Your task to perform on an android device: turn vacation reply on in the gmail app Image 0: 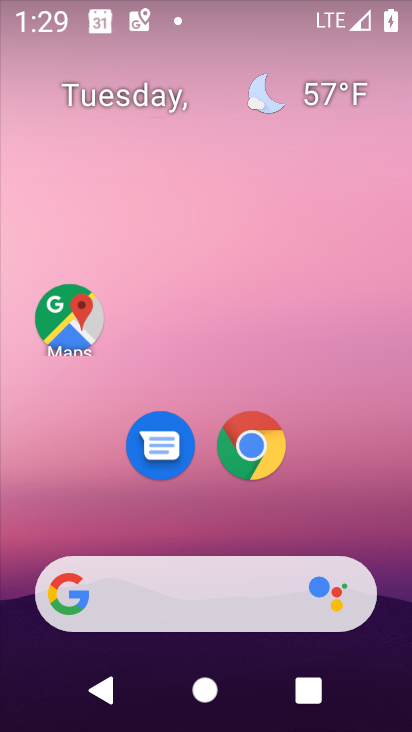
Step 0: drag from (381, 531) to (371, 189)
Your task to perform on an android device: turn vacation reply on in the gmail app Image 1: 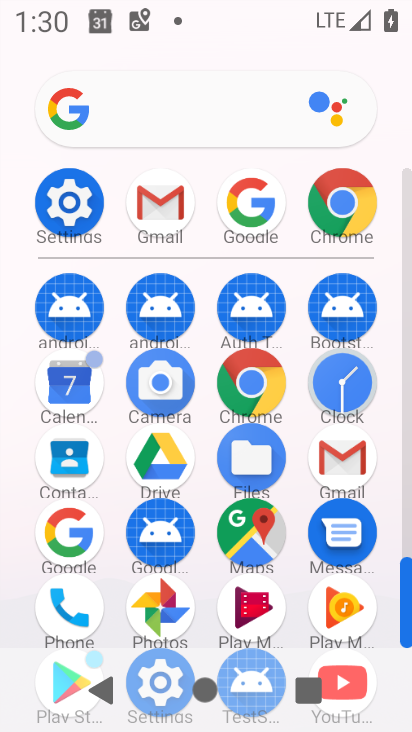
Step 1: click (336, 458)
Your task to perform on an android device: turn vacation reply on in the gmail app Image 2: 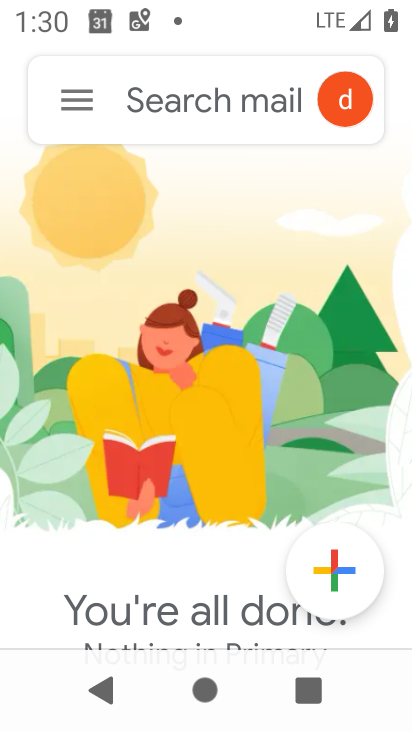
Step 2: click (81, 93)
Your task to perform on an android device: turn vacation reply on in the gmail app Image 3: 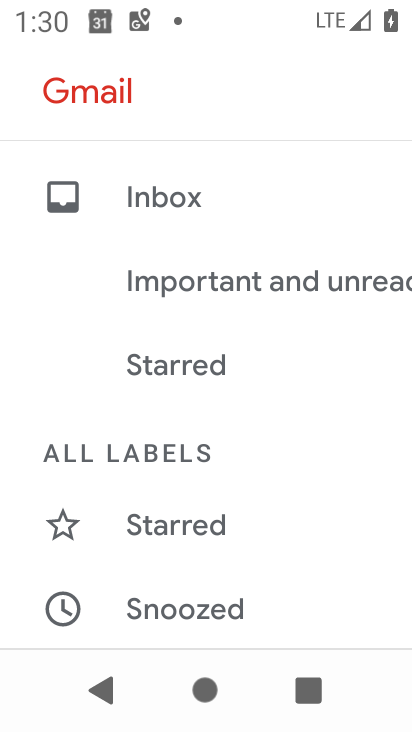
Step 3: drag from (329, 448) to (353, 231)
Your task to perform on an android device: turn vacation reply on in the gmail app Image 4: 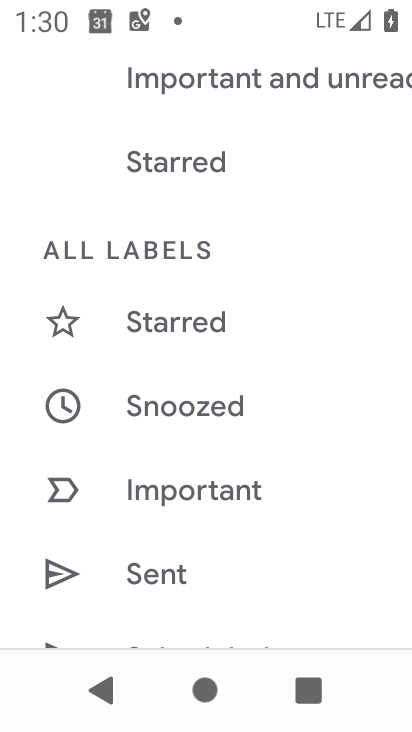
Step 4: drag from (340, 439) to (344, 285)
Your task to perform on an android device: turn vacation reply on in the gmail app Image 5: 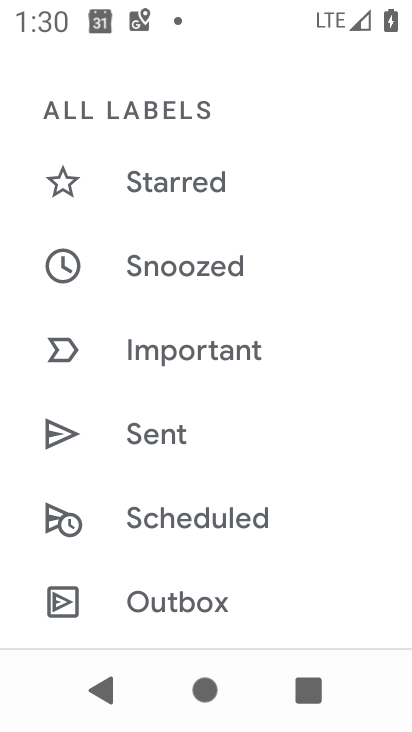
Step 5: drag from (328, 449) to (329, 306)
Your task to perform on an android device: turn vacation reply on in the gmail app Image 6: 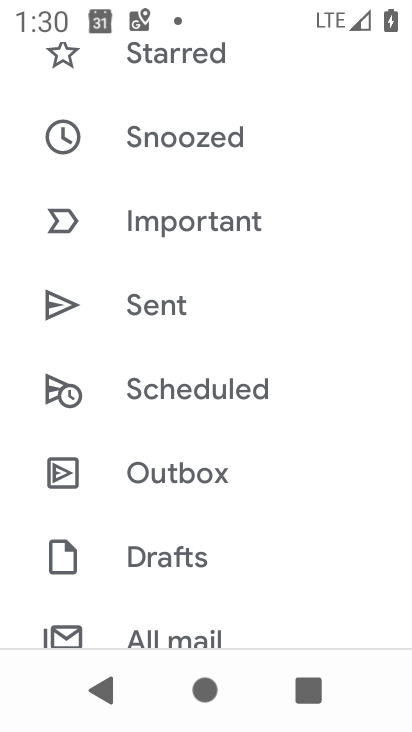
Step 6: drag from (322, 494) to (339, 327)
Your task to perform on an android device: turn vacation reply on in the gmail app Image 7: 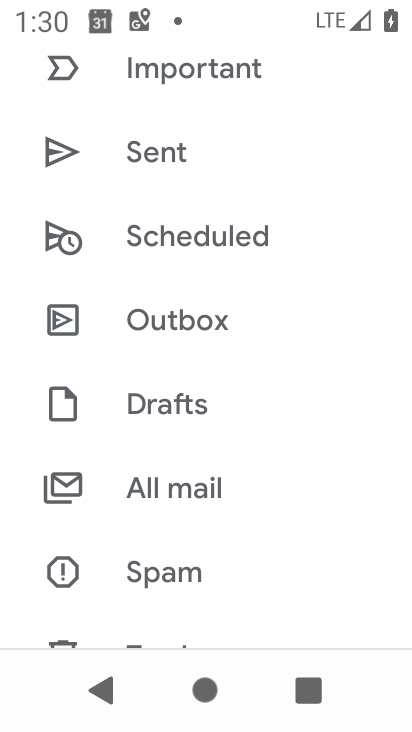
Step 7: drag from (346, 496) to (346, 373)
Your task to perform on an android device: turn vacation reply on in the gmail app Image 8: 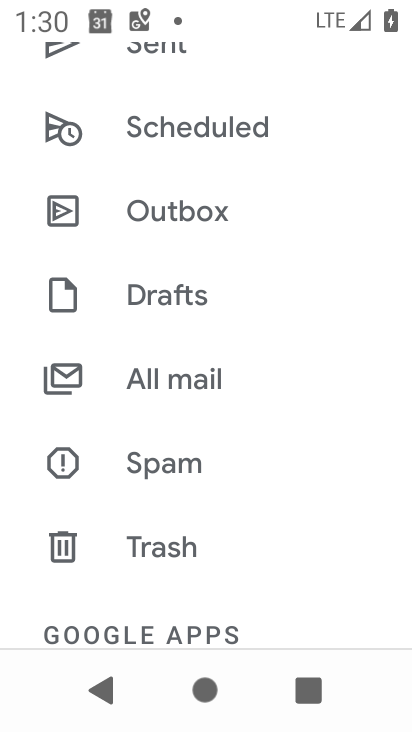
Step 8: drag from (302, 518) to (321, 282)
Your task to perform on an android device: turn vacation reply on in the gmail app Image 9: 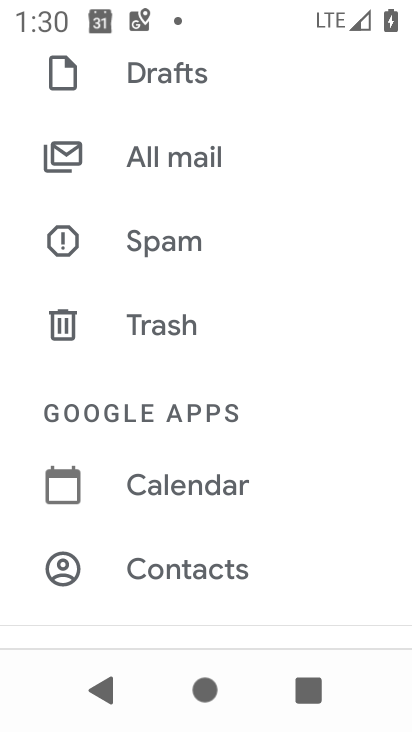
Step 9: drag from (308, 548) to (302, 406)
Your task to perform on an android device: turn vacation reply on in the gmail app Image 10: 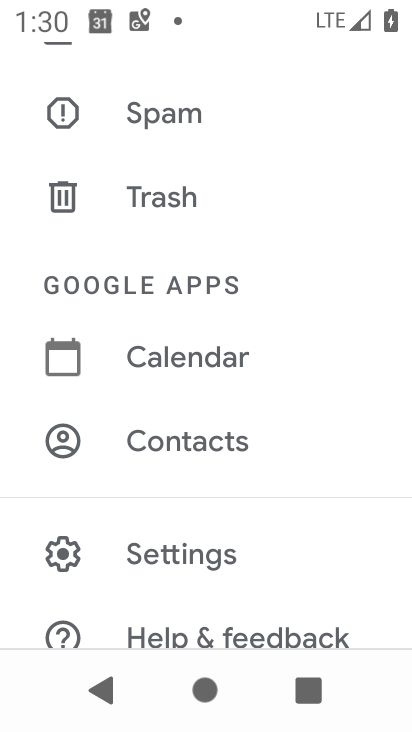
Step 10: click (215, 558)
Your task to perform on an android device: turn vacation reply on in the gmail app Image 11: 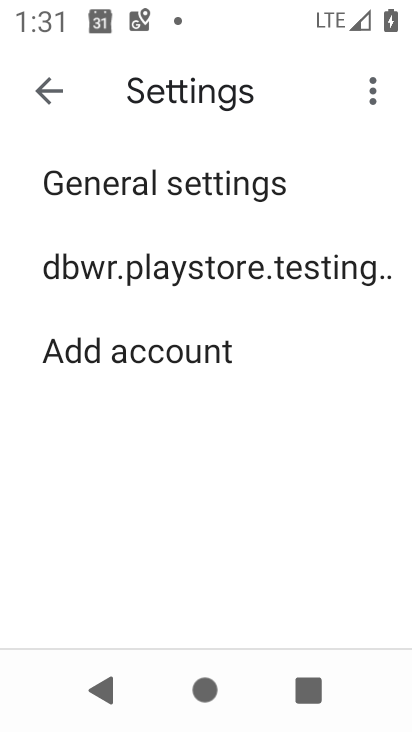
Step 11: click (235, 265)
Your task to perform on an android device: turn vacation reply on in the gmail app Image 12: 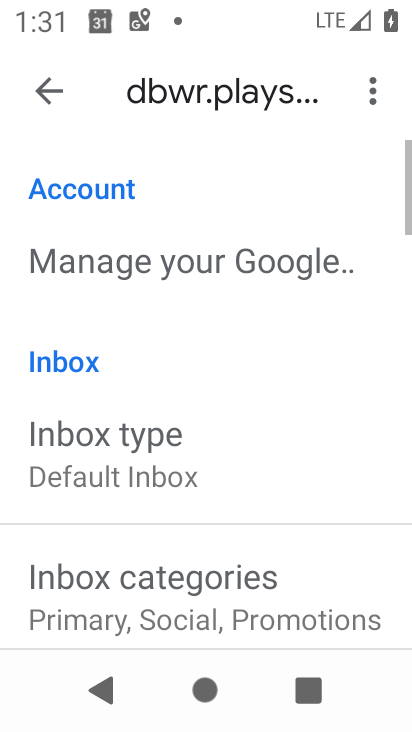
Step 12: drag from (294, 482) to (303, 390)
Your task to perform on an android device: turn vacation reply on in the gmail app Image 13: 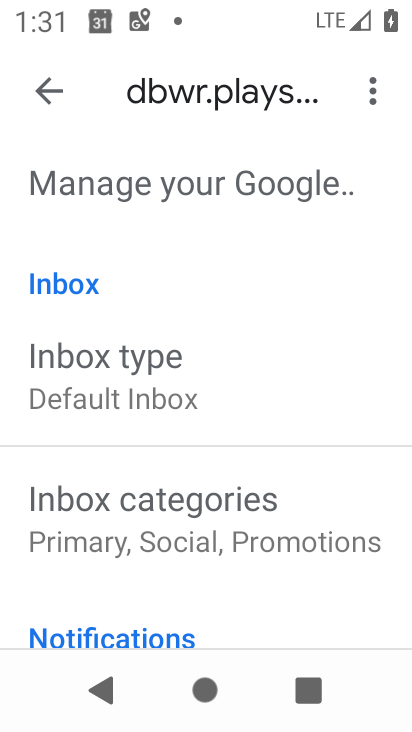
Step 13: drag from (313, 565) to (314, 419)
Your task to perform on an android device: turn vacation reply on in the gmail app Image 14: 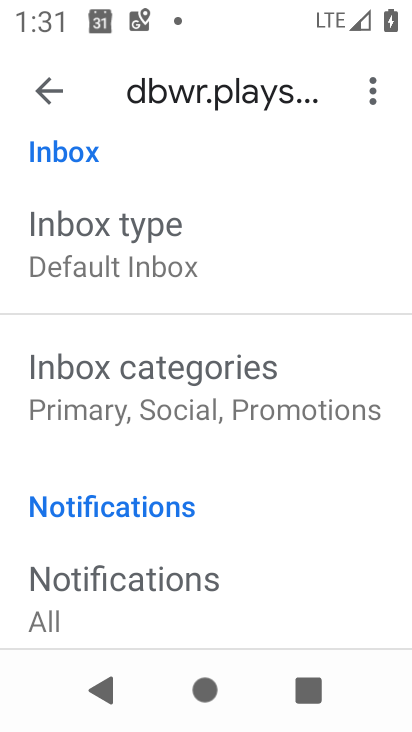
Step 14: drag from (323, 538) to (347, 299)
Your task to perform on an android device: turn vacation reply on in the gmail app Image 15: 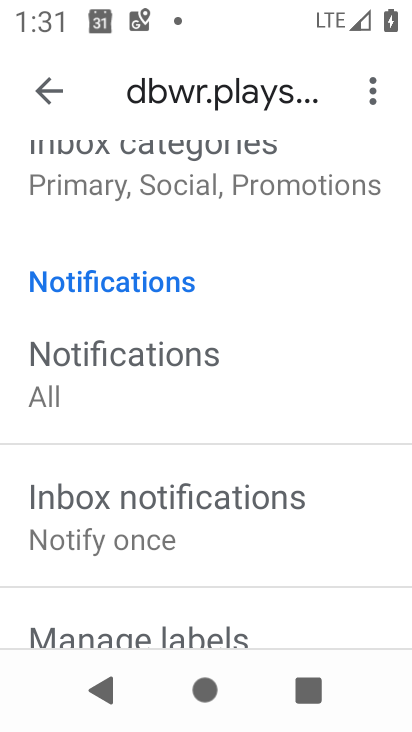
Step 15: drag from (337, 489) to (309, 345)
Your task to perform on an android device: turn vacation reply on in the gmail app Image 16: 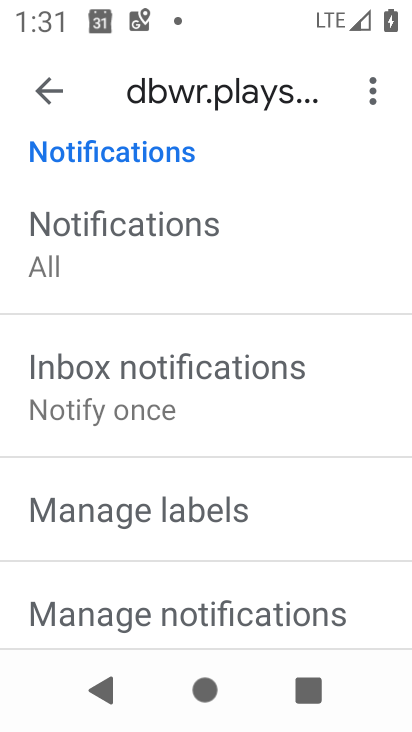
Step 16: drag from (302, 513) to (289, 370)
Your task to perform on an android device: turn vacation reply on in the gmail app Image 17: 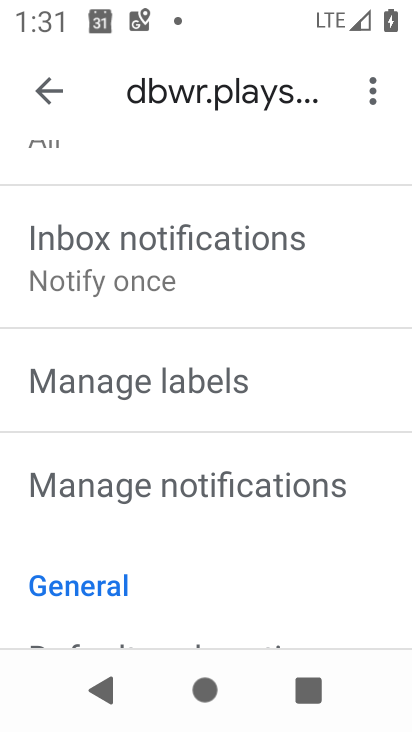
Step 17: drag from (296, 496) to (295, 337)
Your task to perform on an android device: turn vacation reply on in the gmail app Image 18: 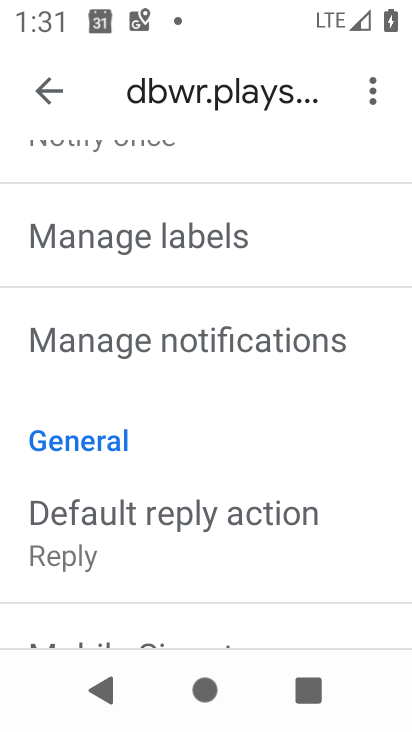
Step 18: drag from (309, 534) to (320, 366)
Your task to perform on an android device: turn vacation reply on in the gmail app Image 19: 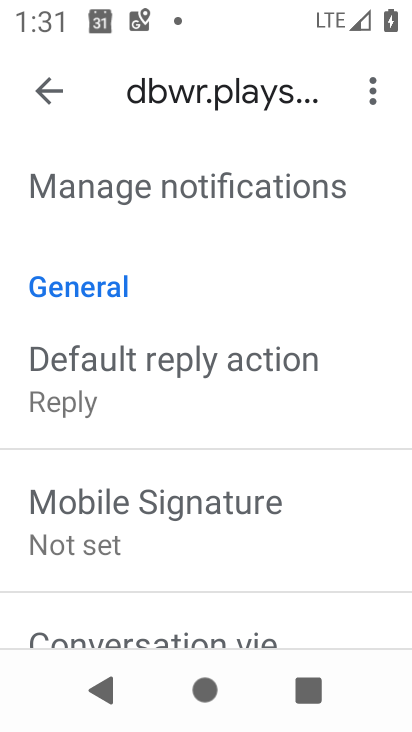
Step 19: drag from (313, 554) to (355, 407)
Your task to perform on an android device: turn vacation reply on in the gmail app Image 20: 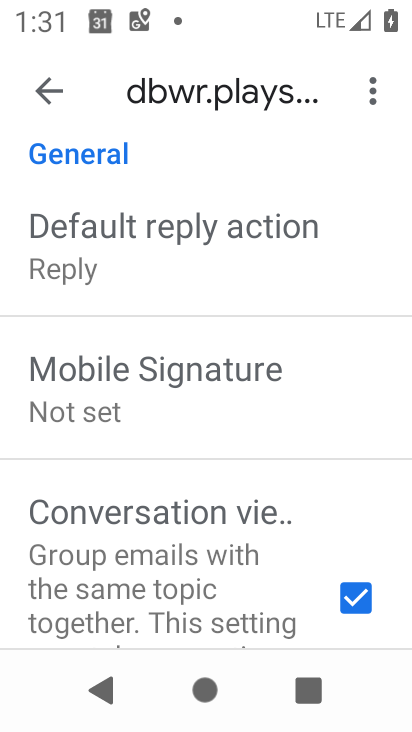
Step 20: drag from (343, 496) to (334, 323)
Your task to perform on an android device: turn vacation reply on in the gmail app Image 21: 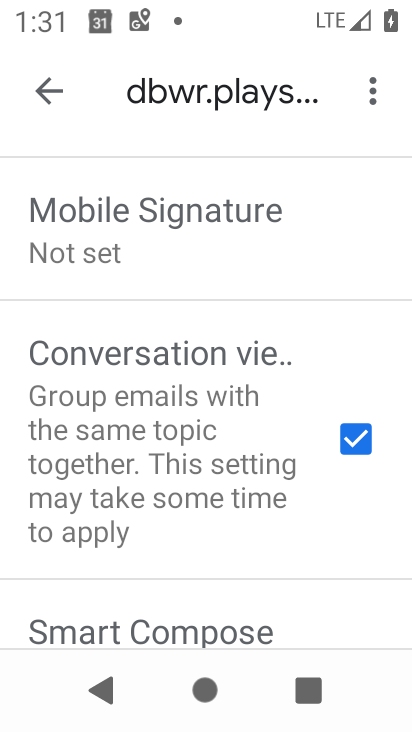
Step 21: drag from (295, 570) to (294, 359)
Your task to perform on an android device: turn vacation reply on in the gmail app Image 22: 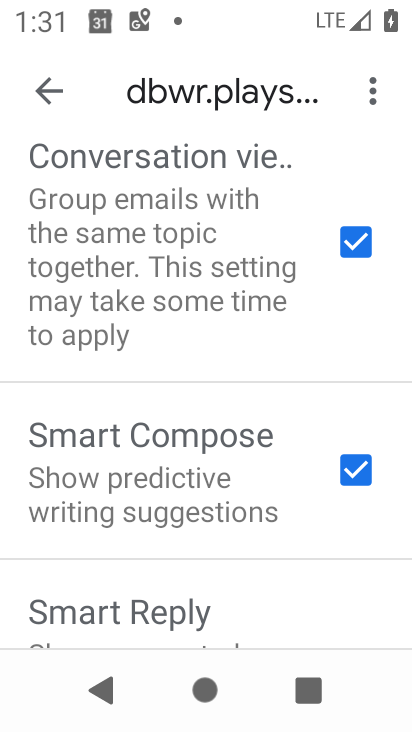
Step 22: drag from (273, 567) to (285, 351)
Your task to perform on an android device: turn vacation reply on in the gmail app Image 23: 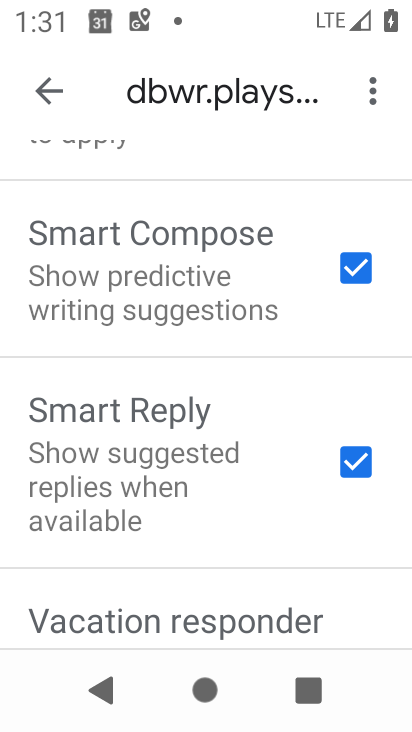
Step 23: drag from (269, 533) to (272, 365)
Your task to perform on an android device: turn vacation reply on in the gmail app Image 24: 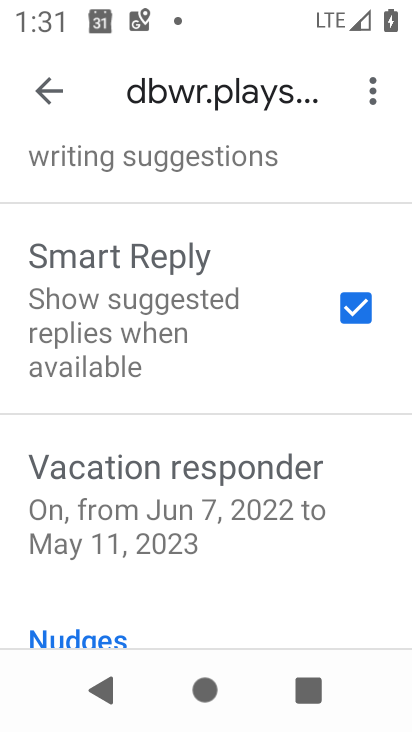
Step 24: click (205, 512)
Your task to perform on an android device: turn vacation reply on in the gmail app Image 25: 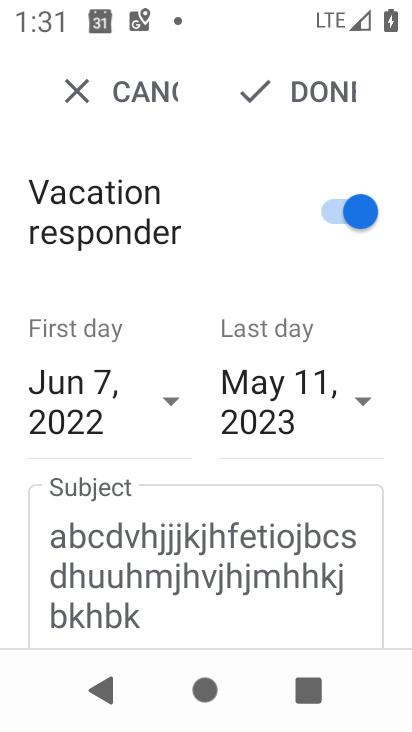
Step 25: task complete